Your task to perform on an android device: read, delete, or share a saved page in the chrome app Image 0: 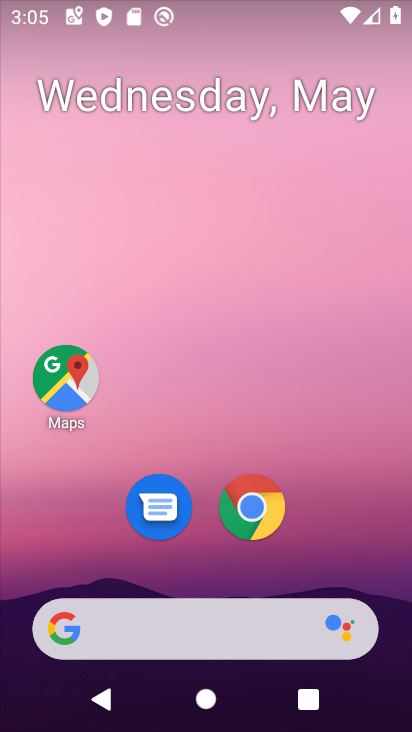
Step 0: drag from (199, 569) to (250, 156)
Your task to perform on an android device: read, delete, or share a saved page in the chrome app Image 1: 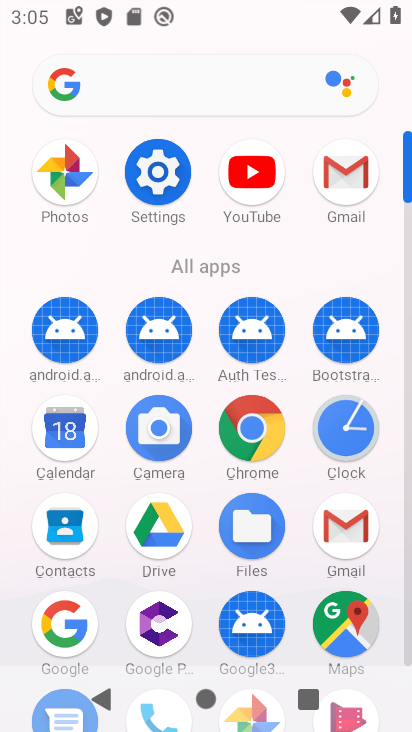
Step 1: click (247, 425)
Your task to perform on an android device: read, delete, or share a saved page in the chrome app Image 2: 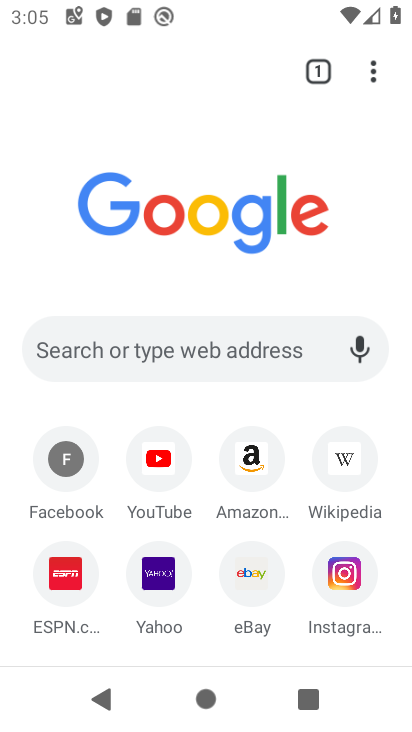
Step 2: drag from (378, 62) to (123, 463)
Your task to perform on an android device: read, delete, or share a saved page in the chrome app Image 3: 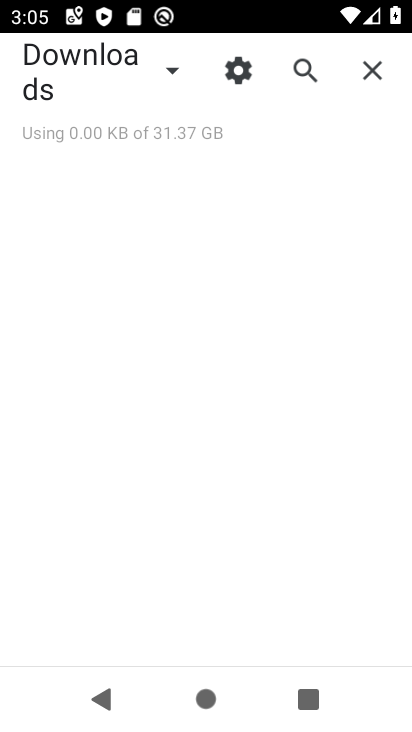
Step 3: click (172, 68)
Your task to perform on an android device: read, delete, or share a saved page in the chrome app Image 4: 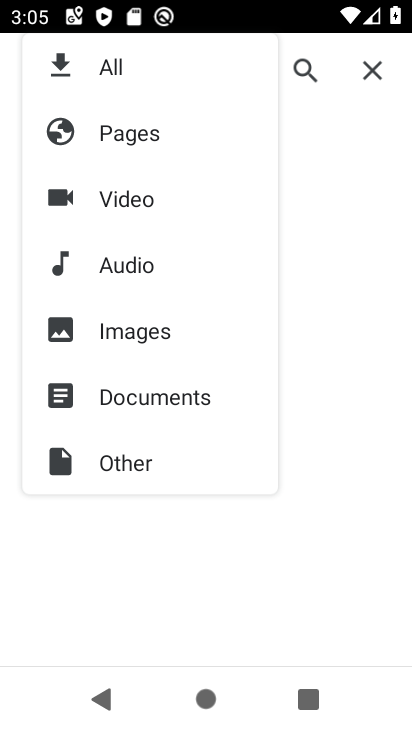
Step 4: click (137, 124)
Your task to perform on an android device: read, delete, or share a saved page in the chrome app Image 5: 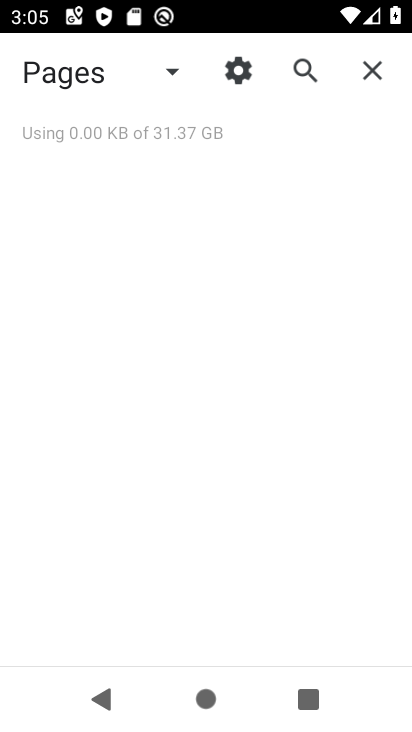
Step 5: task complete